Your task to perform on an android device: Open the map Image 0: 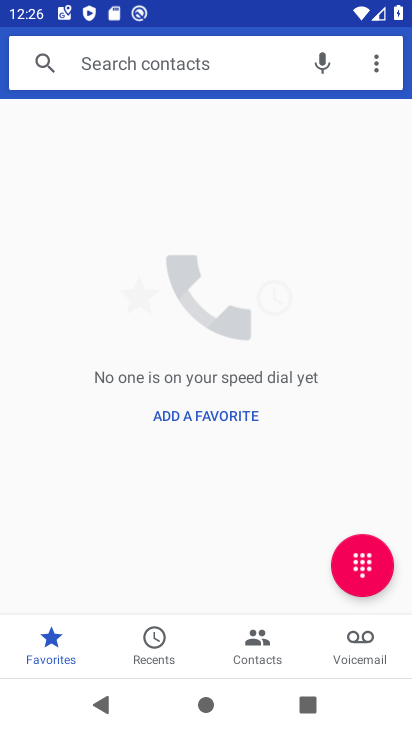
Step 0: press home button
Your task to perform on an android device: Open the map Image 1: 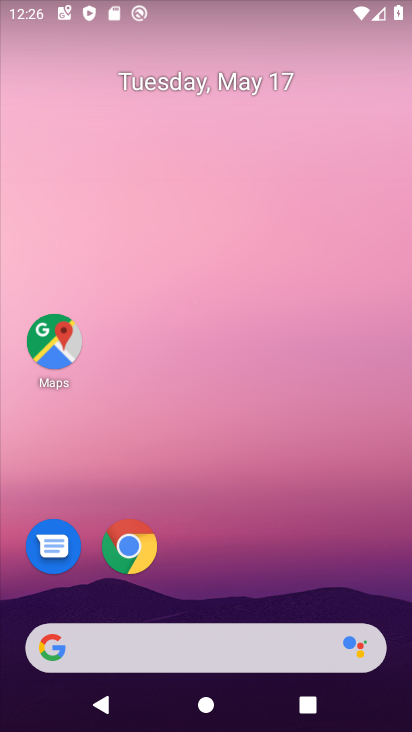
Step 1: drag from (390, 608) to (380, 466)
Your task to perform on an android device: Open the map Image 2: 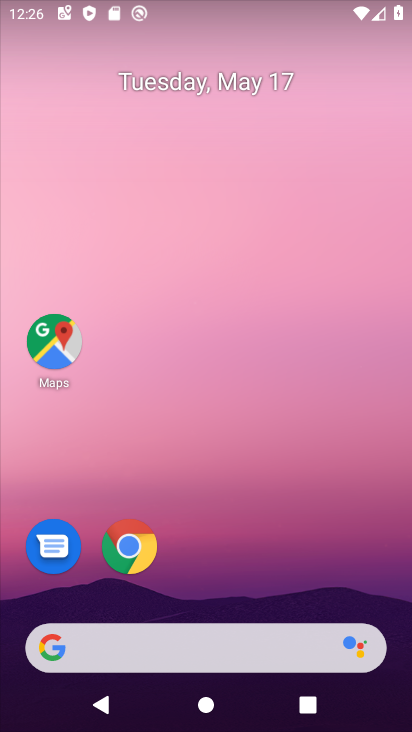
Step 2: click (53, 334)
Your task to perform on an android device: Open the map Image 3: 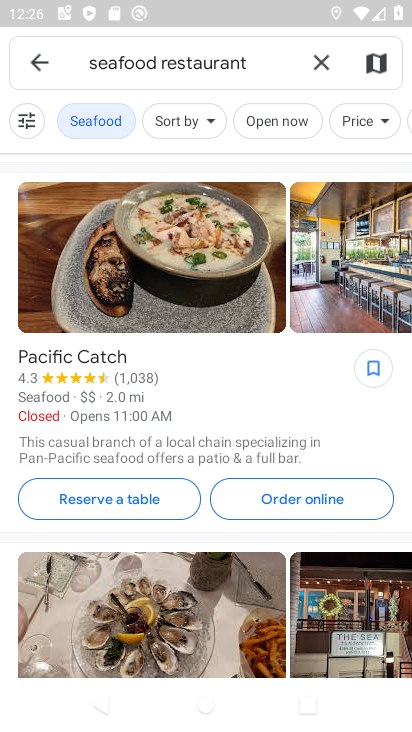
Step 3: click (320, 65)
Your task to perform on an android device: Open the map Image 4: 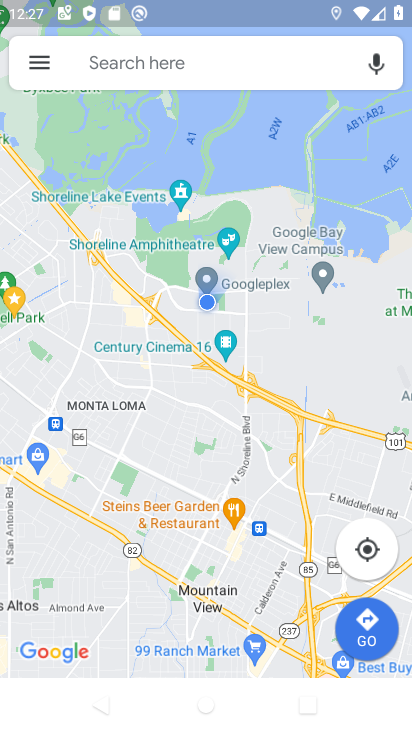
Step 4: task complete